Your task to perform on an android device: Go to settings Image 0: 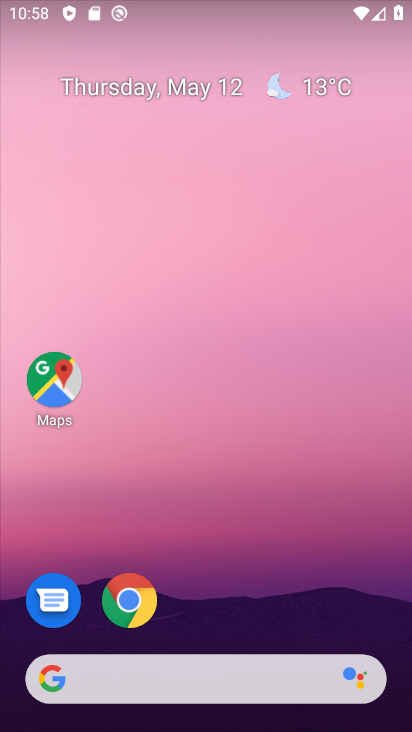
Step 0: drag from (369, 627) to (263, 67)
Your task to perform on an android device: Go to settings Image 1: 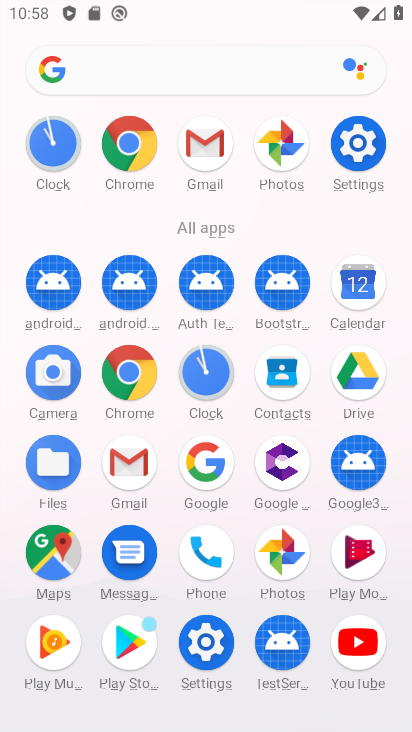
Step 1: click (203, 642)
Your task to perform on an android device: Go to settings Image 2: 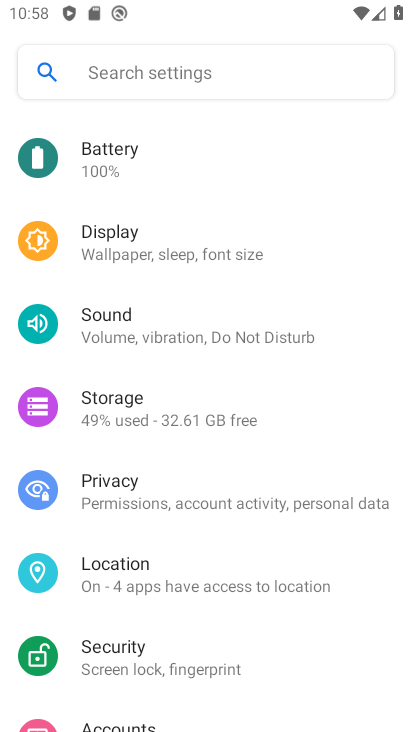
Step 2: task complete